Your task to perform on an android device: check google app version Image 0: 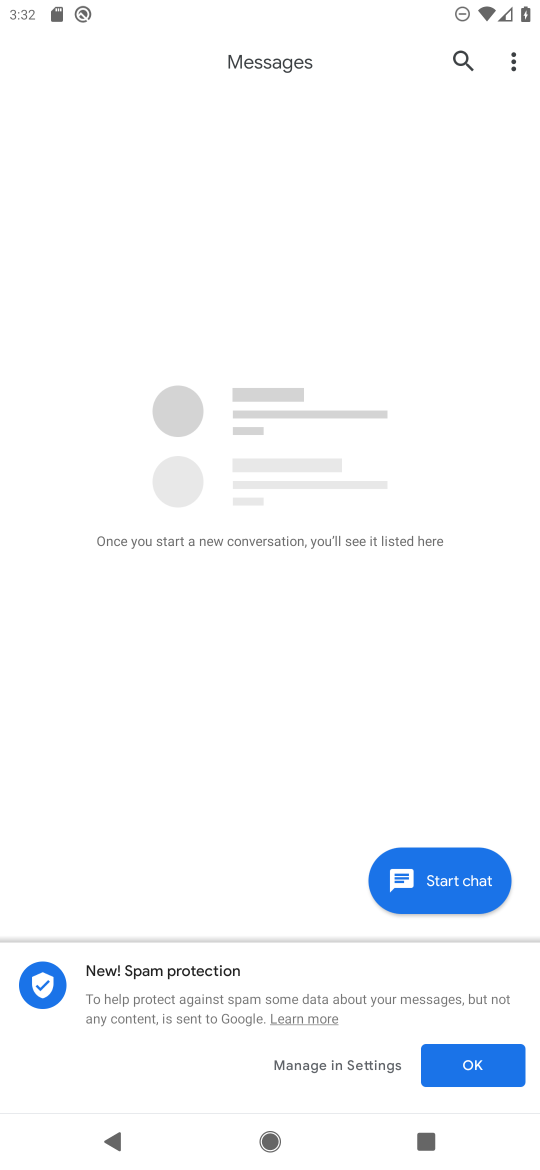
Step 0: press home button
Your task to perform on an android device: check google app version Image 1: 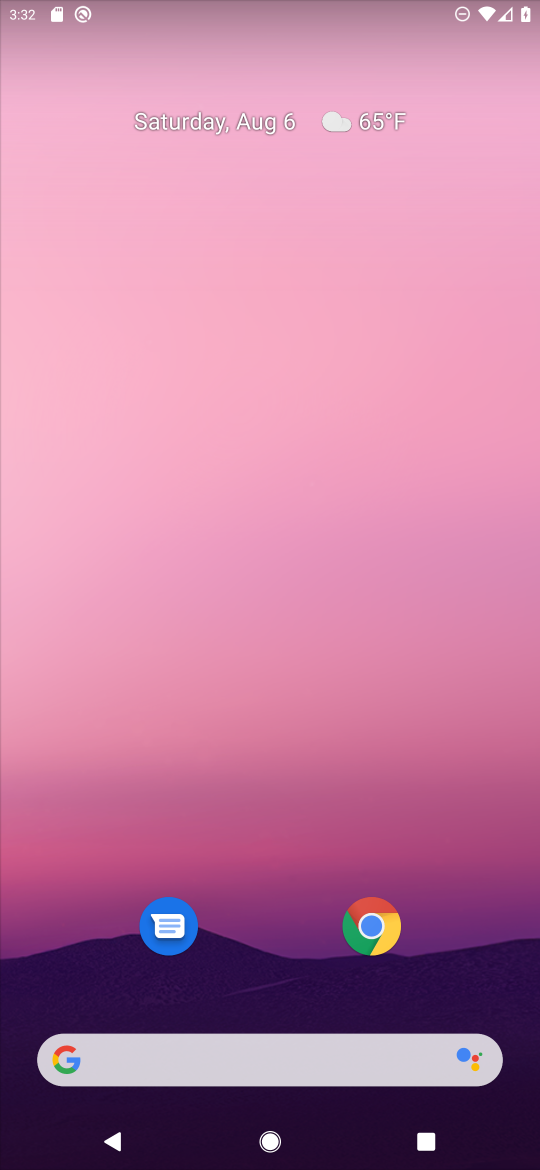
Step 1: drag from (275, 934) to (287, 251)
Your task to perform on an android device: check google app version Image 2: 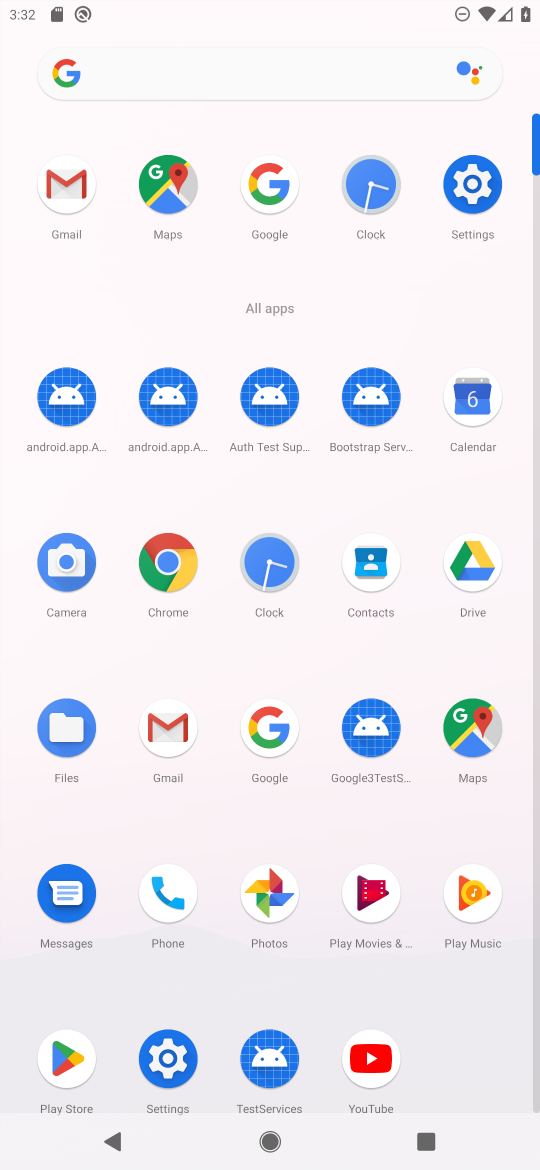
Step 2: click (286, 192)
Your task to perform on an android device: check google app version Image 3: 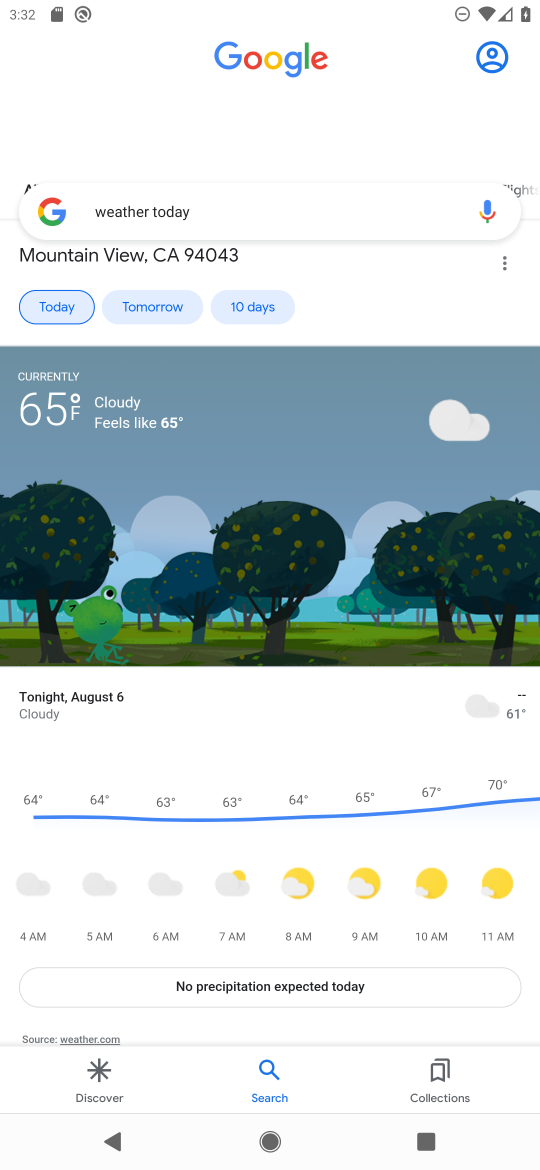
Step 3: click (495, 51)
Your task to perform on an android device: check google app version Image 4: 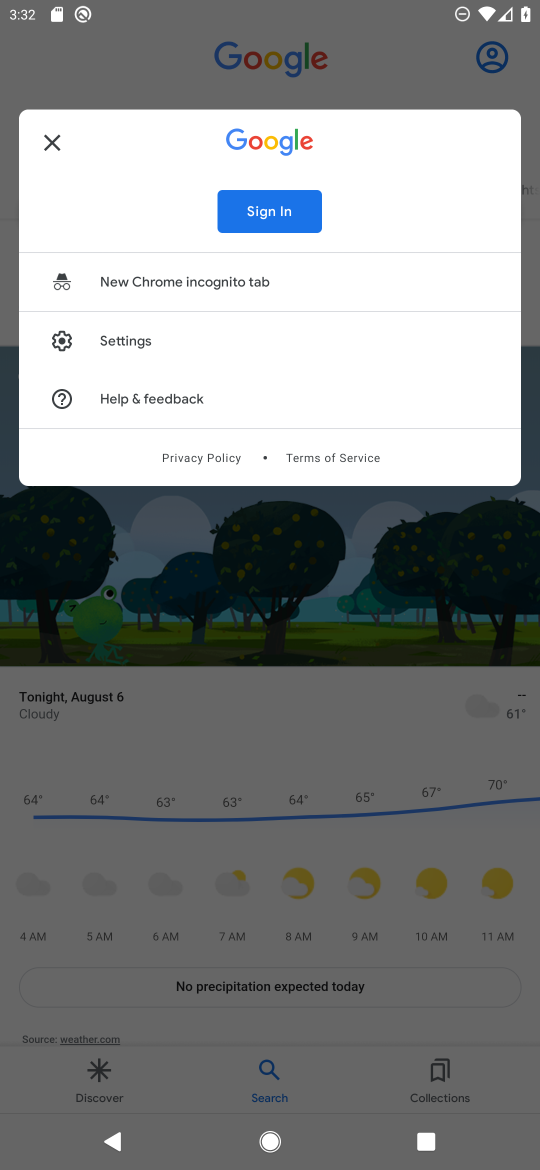
Step 4: click (159, 348)
Your task to perform on an android device: check google app version Image 5: 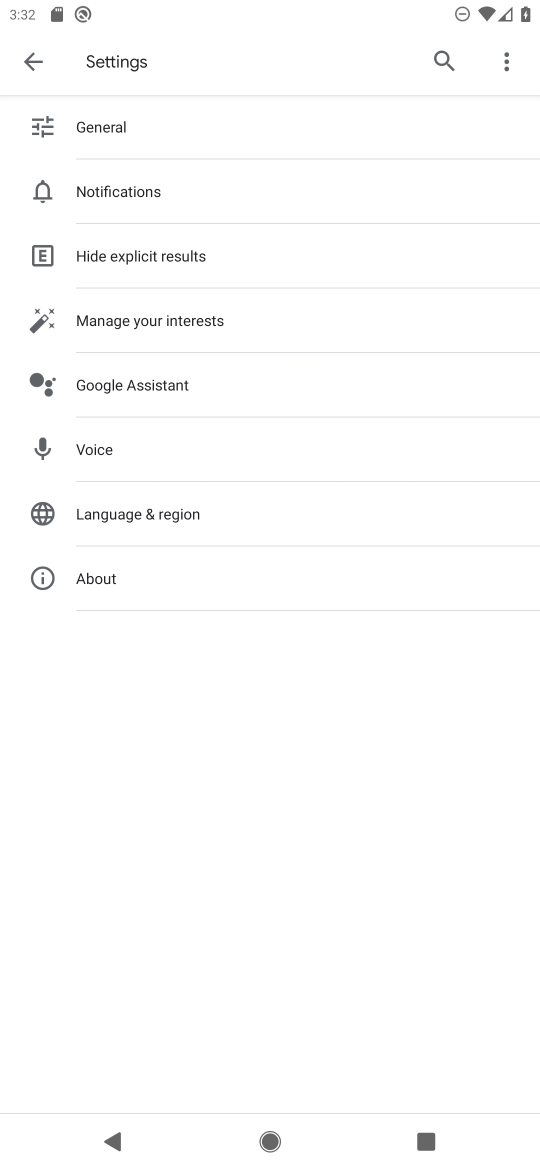
Step 5: click (142, 585)
Your task to perform on an android device: check google app version Image 6: 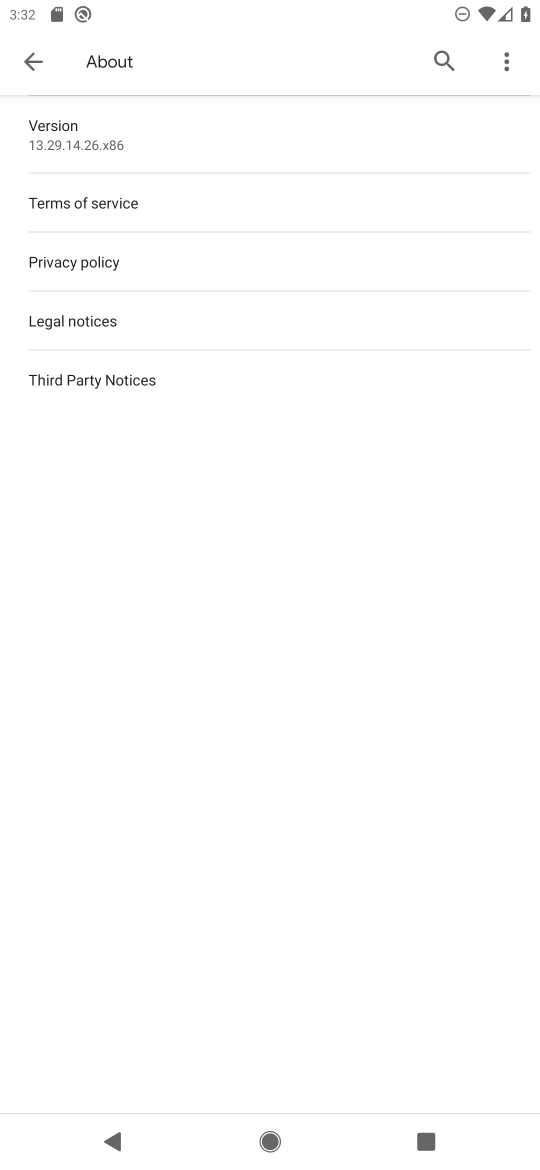
Step 6: click (129, 133)
Your task to perform on an android device: check google app version Image 7: 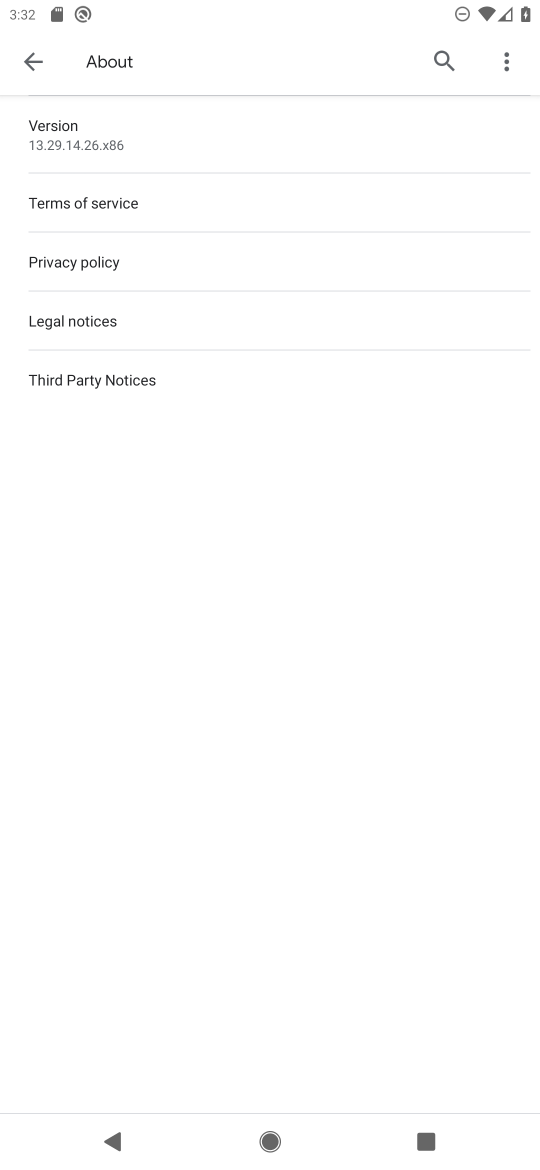
Step 7: click (174, 150)
Your task to perform on an android device: check google app version Image 8: 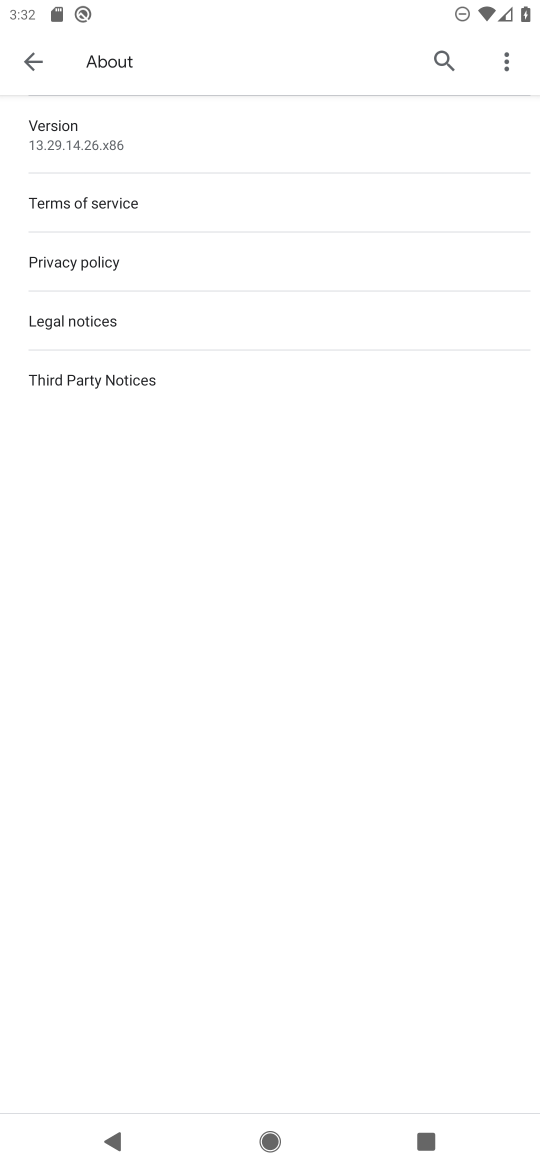
Step 8: task complete